Your task to perform on an android device: toggle airplane mode Image 0: 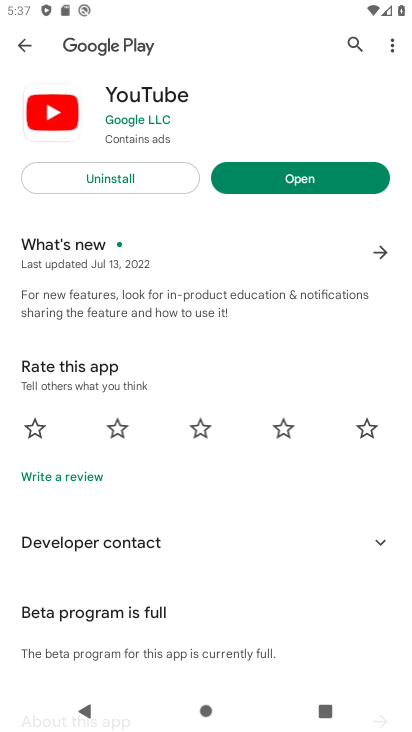
Step 0: drag from (365, 10) to (258, 563)
Your task to perform on an android device: toggle airplane mode Image 1: 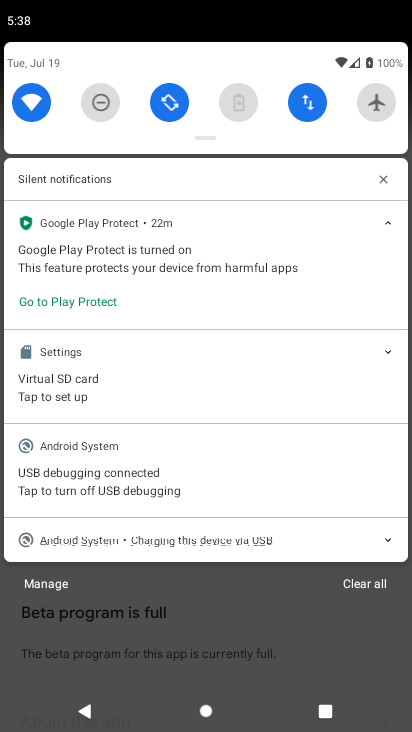
Step 1: click (368, 107)
Your task to perform on an android device: toggle airplane mode Image 2: 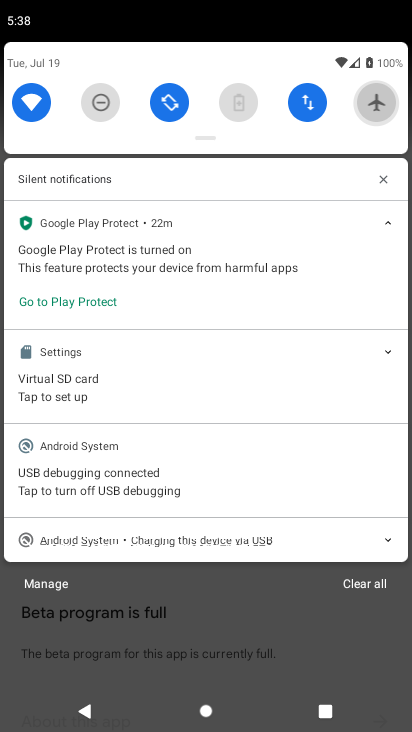
Step 2: click (368, 107)
Your task to perform on an android device: toggle airplane mode Image 3: 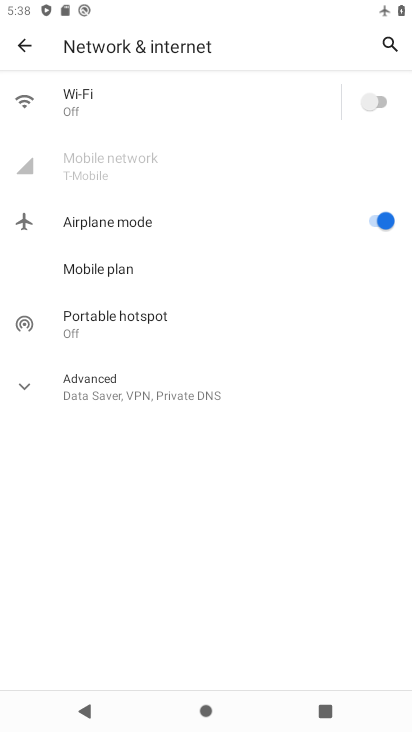
Step 3: click (382, 221)
Your task to perform on an android device: toggle airplane mode Image 4: 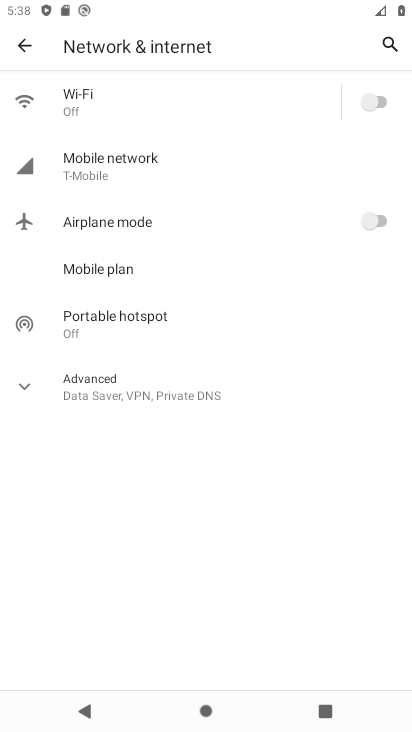
Step 4: task complete